Your task to perform on an android device: turn smart compose on in the gmail app Image 0: 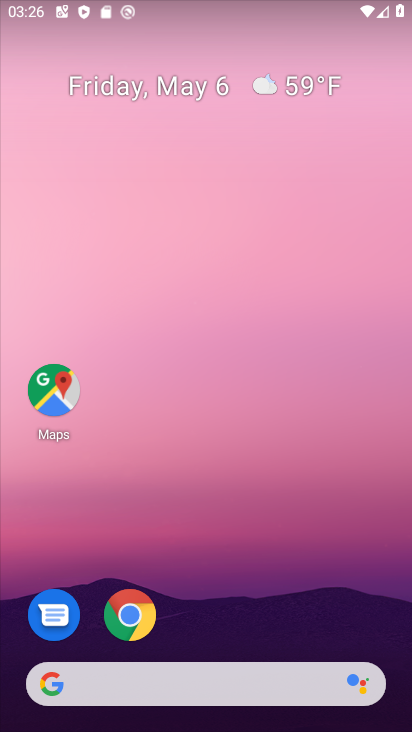
Step 0: drag from (334, 664) to (159, 122)
Your task to perform on an android device: turn smart compose on in the gmail app Image 1: 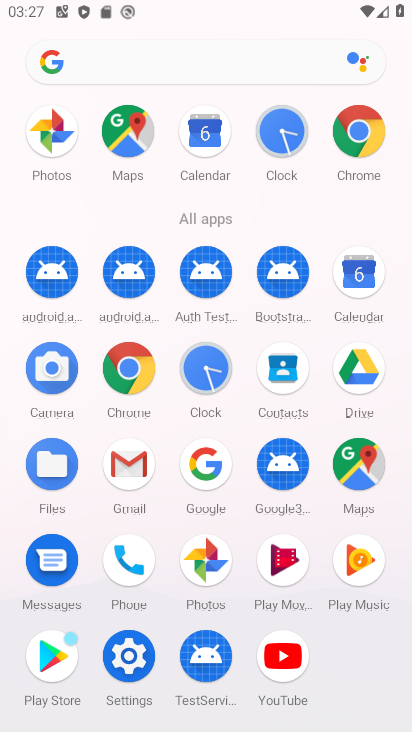
Step 1: click (117, 473)
Your task to perform on an android device: turn smart compose on in the gmail app Image 2: 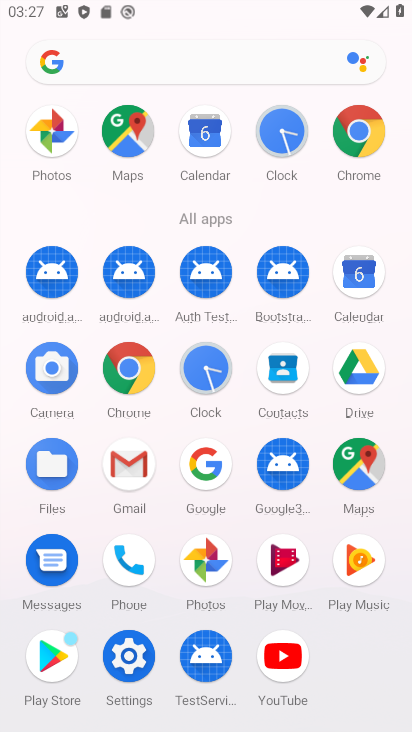
Step 2: click (122, 461)
Your task to perform on an android device: turn smart compose on in the gmail app Image 3: 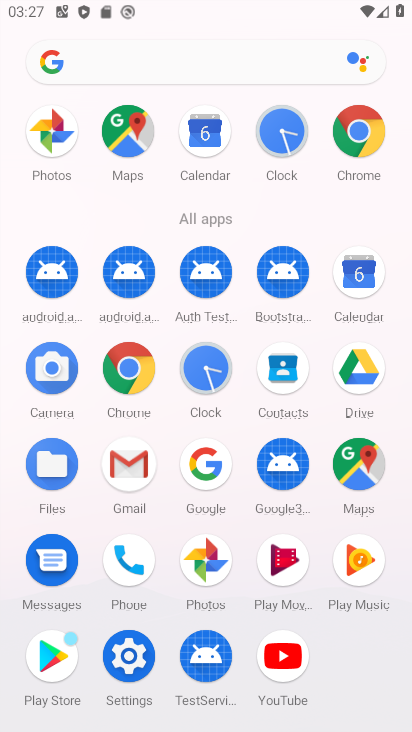
Step 3: click (125, 460)
Your task to perform on an android device: turn smart compose on in the gmail app Image 4: 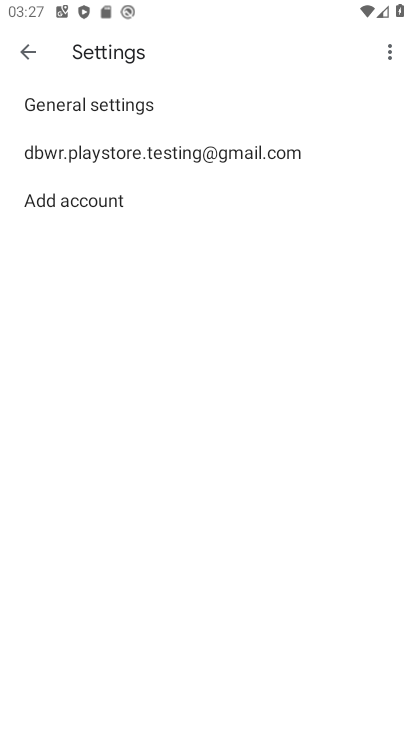
Step 4: click (134, 154)
Your task to perform on an android device: turn smart compose on in the gmail app Image 5: 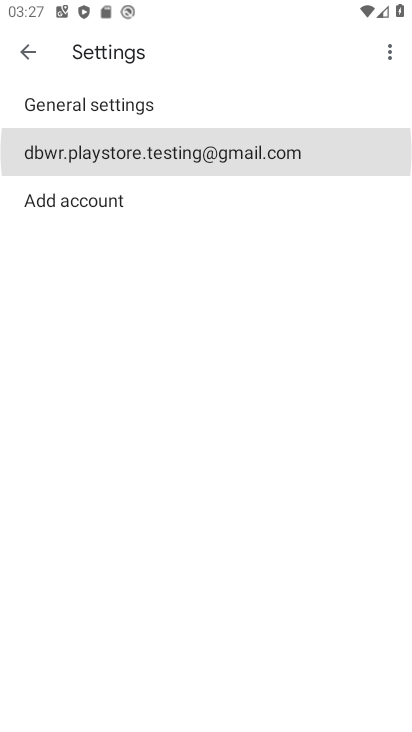
Step 5: click (134, 154)
Your task to perform on an android device: turn smart compose on in the gmail app Image 6: 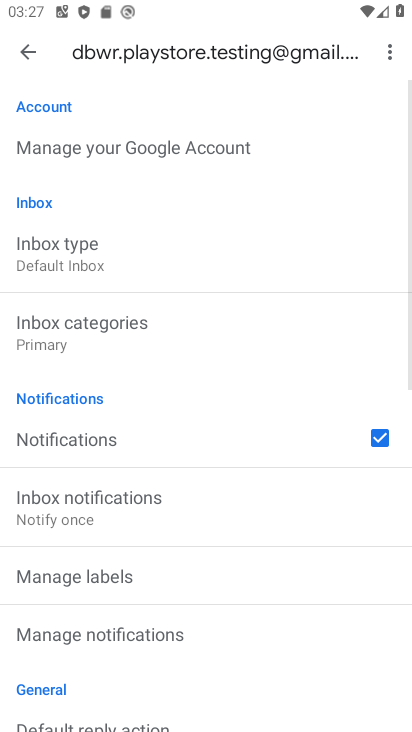
Step 6: task complete